Your task to perform on an android device: Show me recent news Image 0: 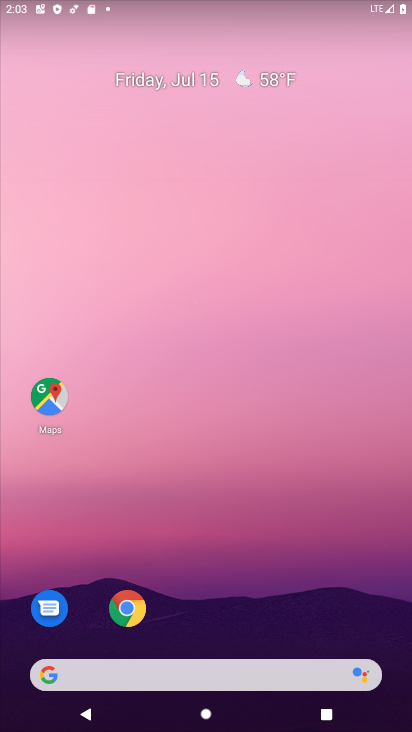
Step 0: drag from (207, 612) to (271, 106)
Your task to perform on an android device: Show me recent news Image 1: 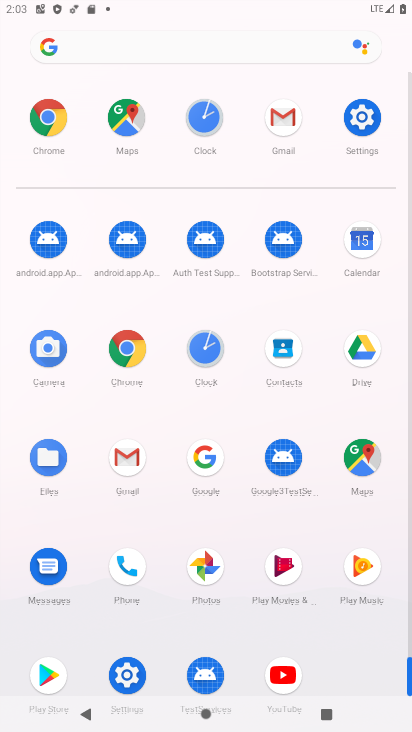
Step 1: click (129, 349)
Your task to perform on an android device: Show me recent news Image 2: 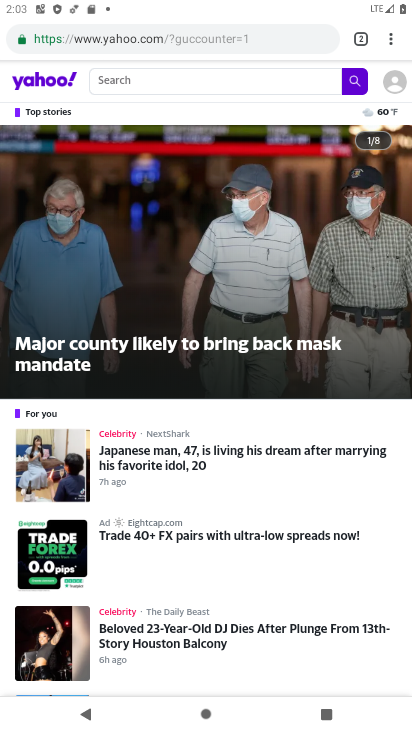
Step 2: click (148, 32)
Your task to perform on an android device: Show me recent news Image 3: 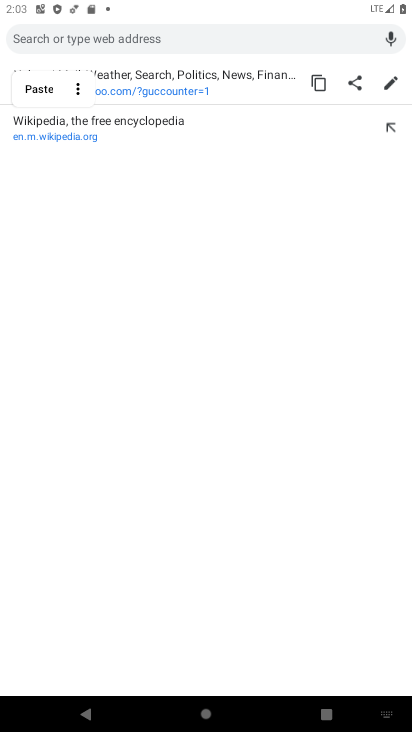
Step 3: type "Show me recent news"
Your task to perform on an android device: Show me recent news Image 4: 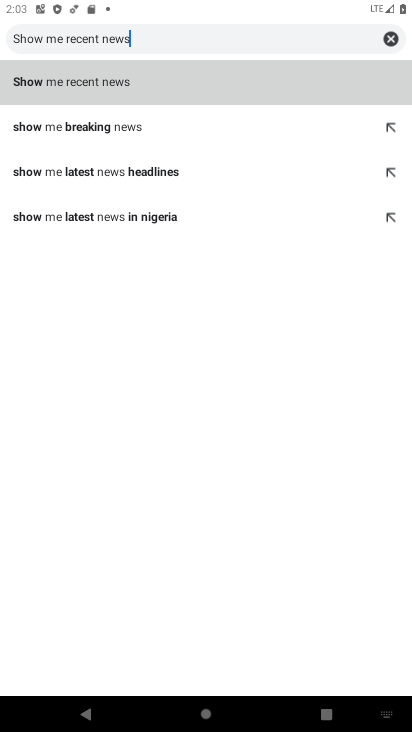
Step 4: click (90, 85)
Your task to perform on an android device: Show me recent news Image 5: 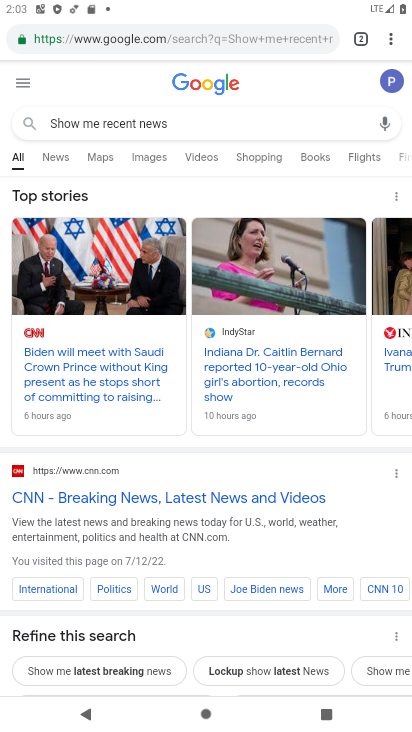
Step 5: click (55, 154)
Your task to perform on an android device: Show me recent news Image 6: 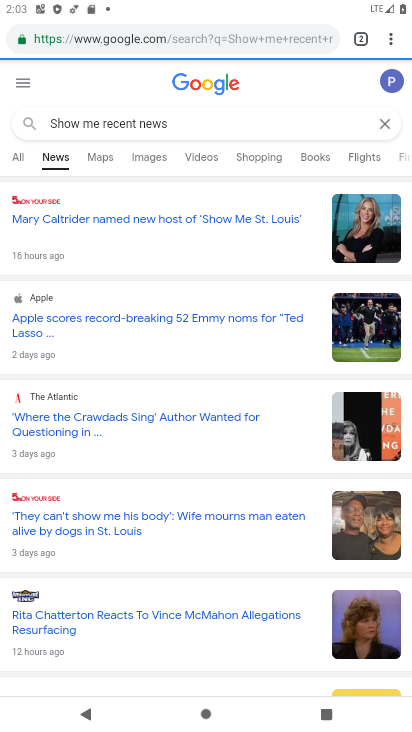
Step 6: task complete